Your task to perform on an android device: Turn on the flashlight Image 0: 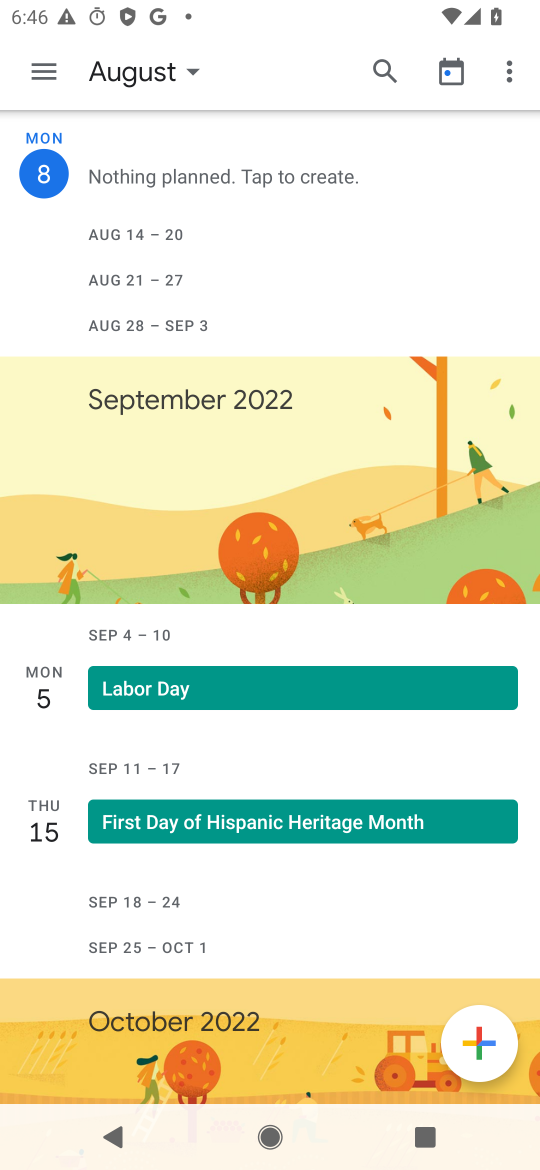
Step 0: press home button
Your task to perform on an android device: Turn on the flashlight Image 1: 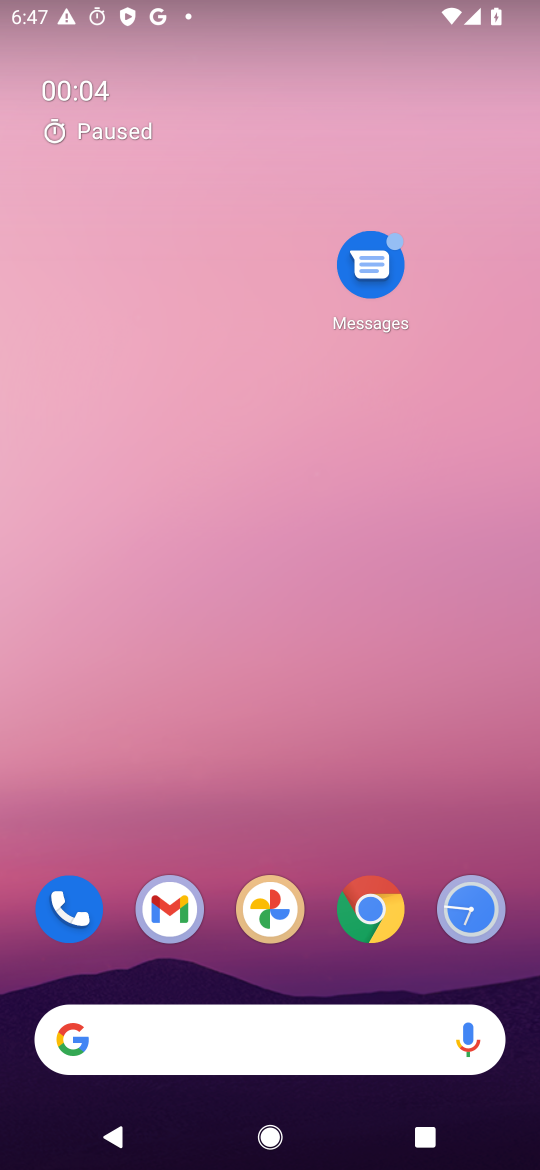
Step 1: drag from (304, 9) to (267, 694)
Your task to perform on an android device: Turn on the flashlight Image 2: 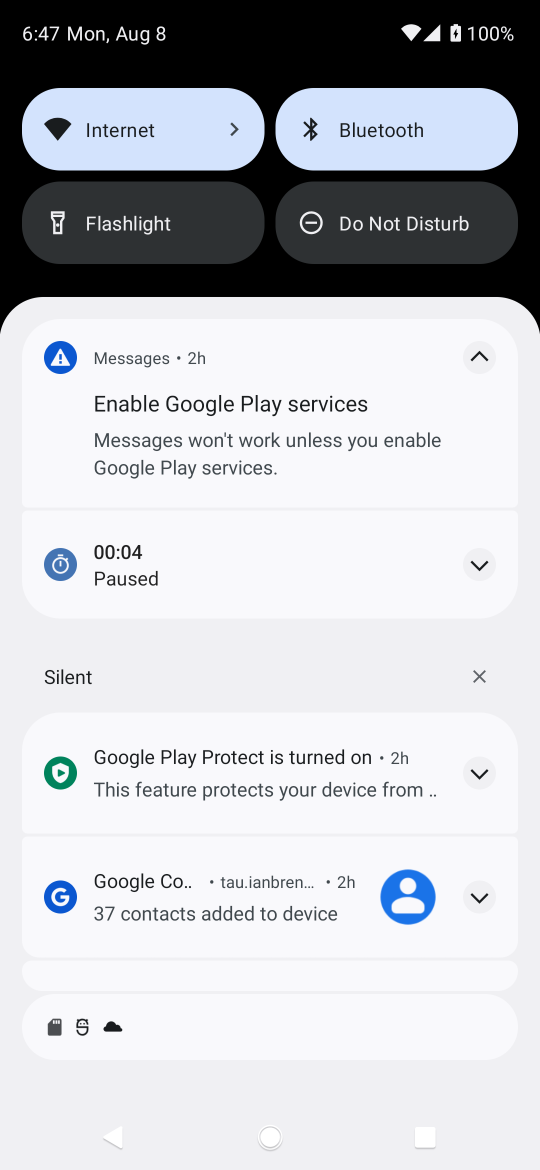
Step 2: click (145, 227)
Your task to perform on an android device: Turn on the flashlight Image 3: 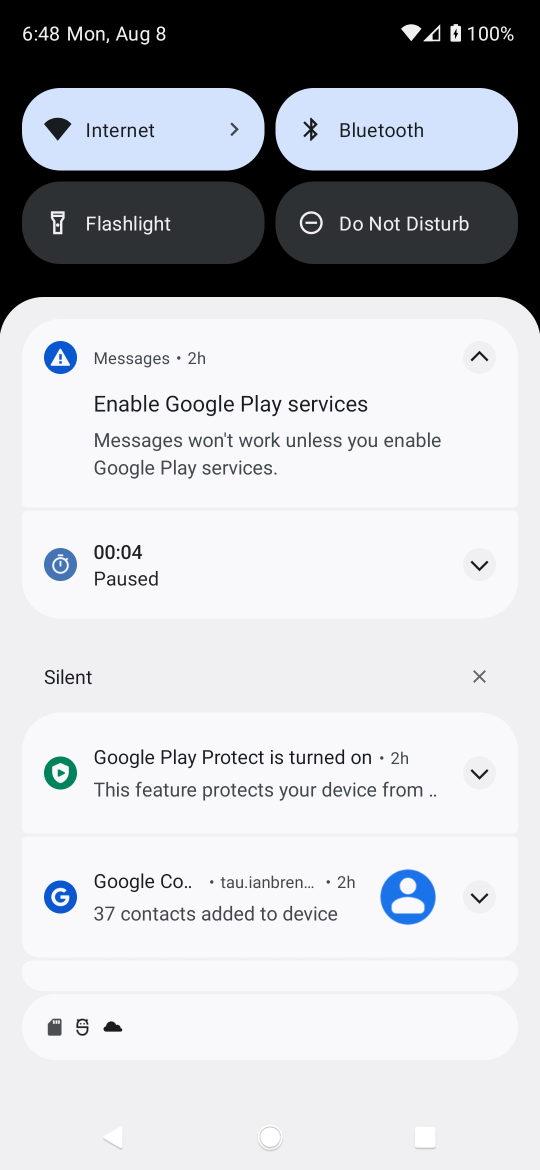
Step 3: task complete